Your task to perform on an android device: turn on bluetooth scan Image 0: 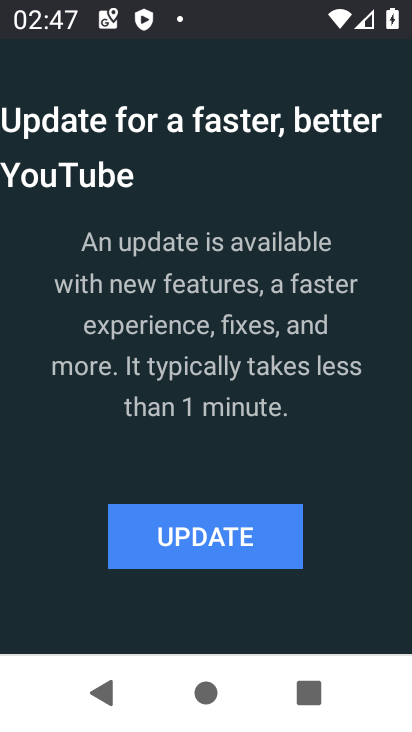
Step 0: press home button
Your task to perform on an android device: turn on bluetooth scan Image 1: 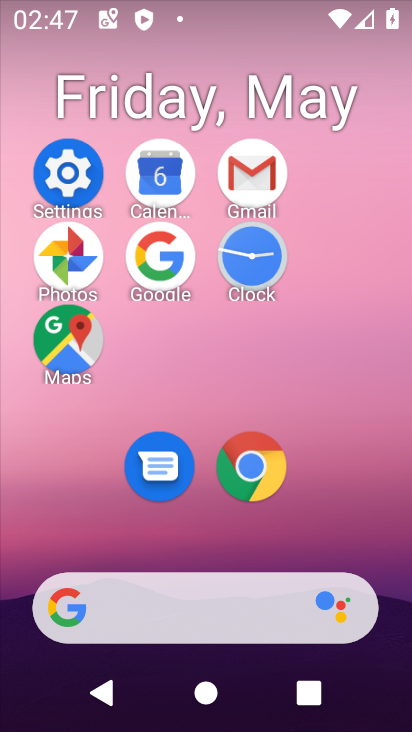
Step 1: click (66, 174)
Your task to perform on an android device: turn on bluetooth scan Image 2: 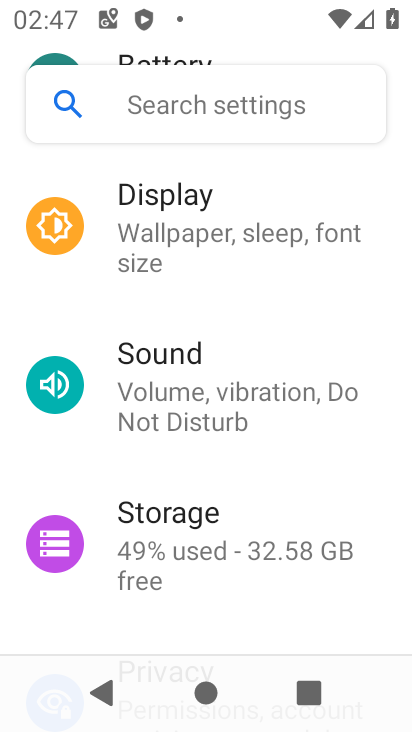
Step 2: drag from (259, 566) to (276, 131)
Your task to perform on an android device: turn on bluetooth scan Image 3: 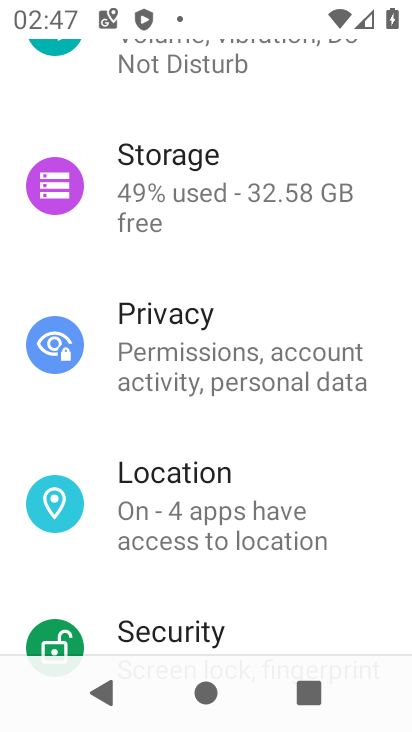
Step 3: drag from (319, 499) to (340, 184)
Your task to perform on an android device: turn on bluetooth scan Image 4: 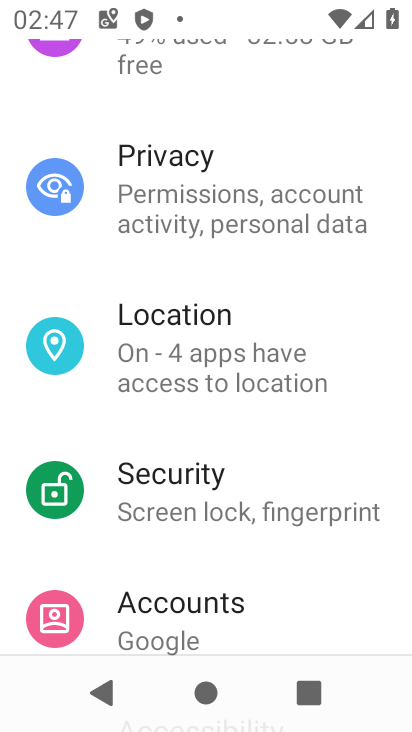
Step 4: drag from (275, 604) to (287, 190)
Your task to perform on an android device: turn on bluetooth scan Image 5: 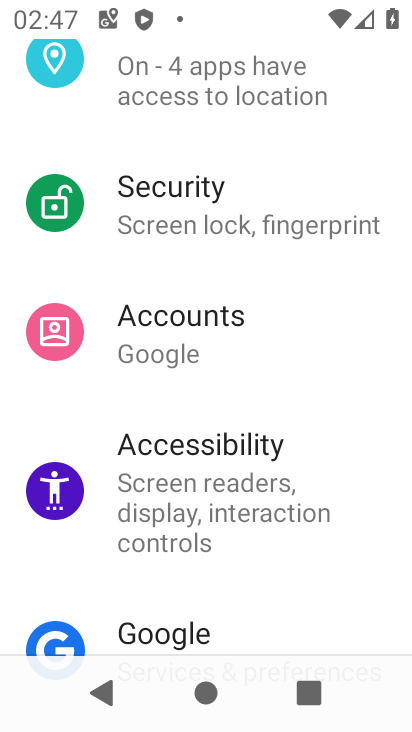
Step 5: drag from (287, 569) to (288, 242)
Your task to perform on an android device: turn on bluetooth scan Image 6: 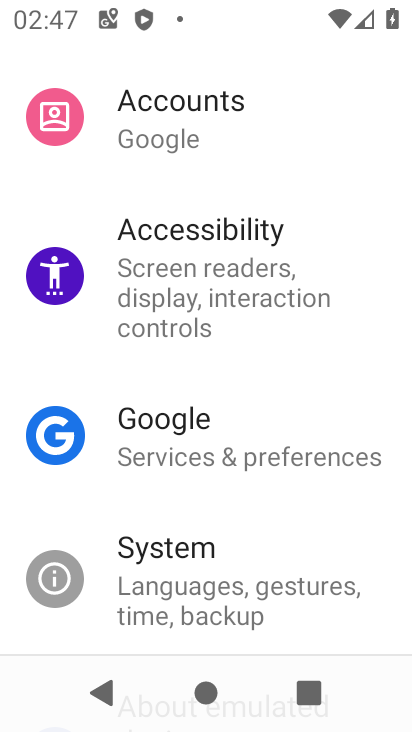
Step 6: drag from (264, 552) to (290, 246)
Your task to perform on an android device: turn on bluetooth scan Image 7: 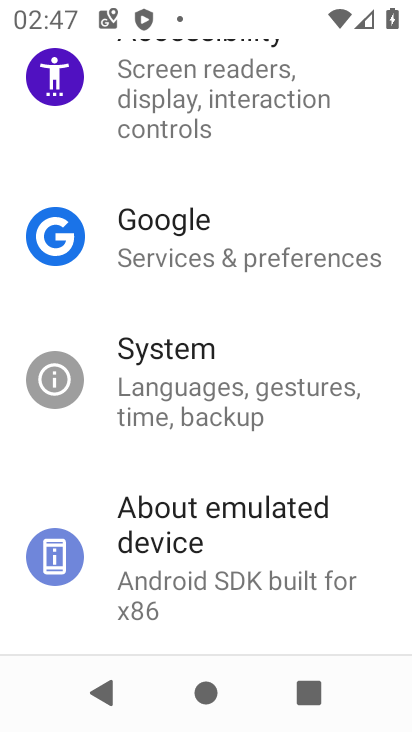
Step 7: drag from (351, 184) to (306, 617)
Your task to perform on an android device: turn on bluetooth scan Image 8: 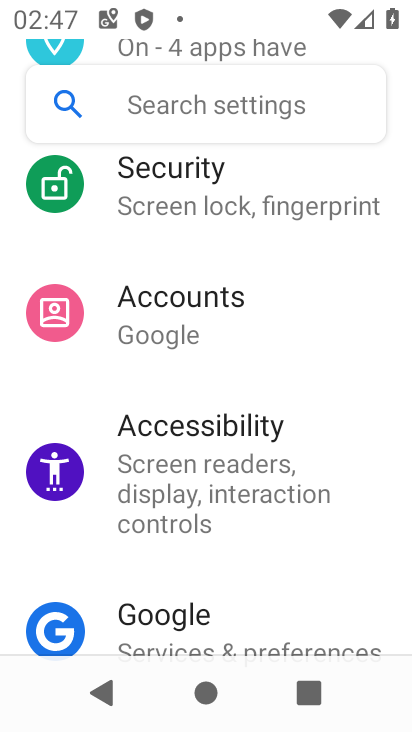
Step 8: drag from (315, 153) to (328, 612)
Your task to perform on an android device: turn on bluetooth scan Image 9: 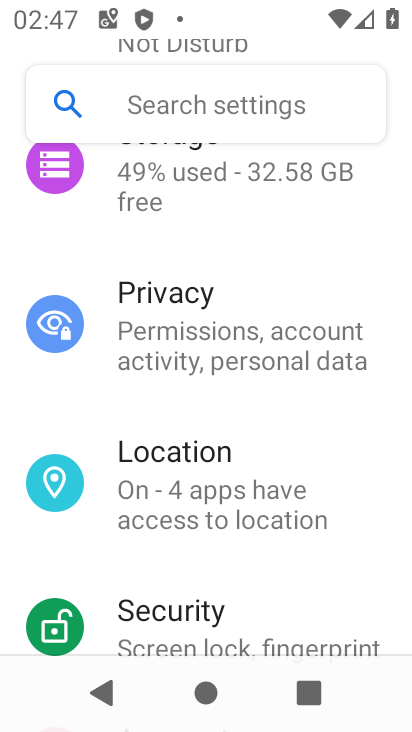
Step 9: drag from (345, 165) to (295, 511)
Your task to perform on an android device: turn on bluetooth scan Image 10: 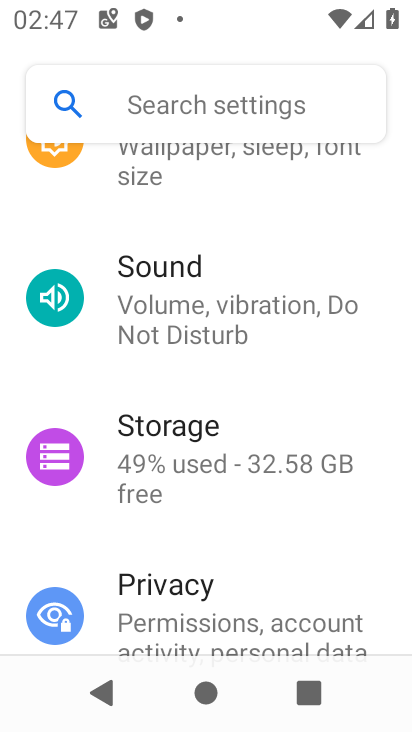
Step 10: drag from (313, 209) to (296, 571)
Your task to perform on an android device: turn on bluetooth scan Image 11: 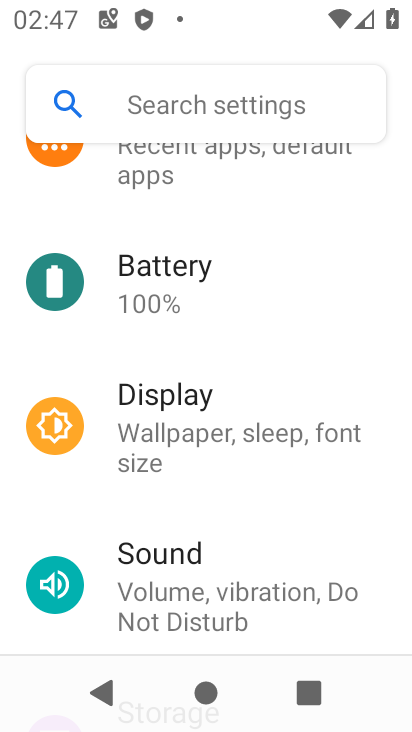
Step 11: drag from (284, 186) to (276, 545)
Your task to perform on an android device: turn on bluetooth scan Image 12: 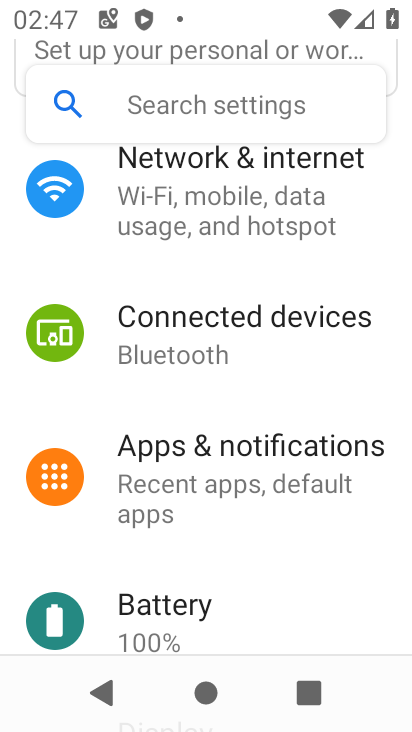
Step 12: drag from (262, 418) to (306, 151)
Your task to perform on an android device: turn on bluetooth scan Image 13: 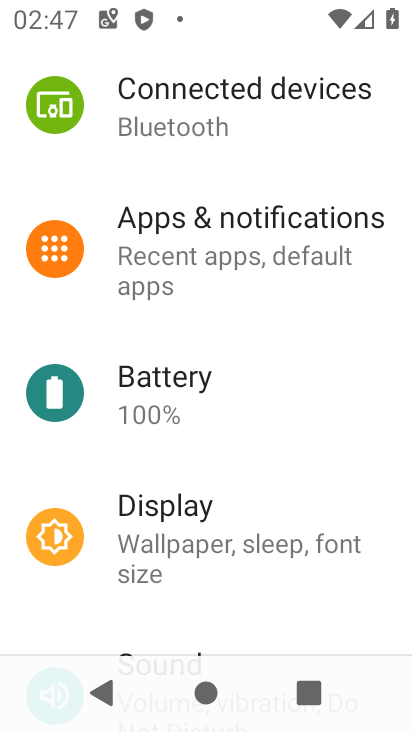
Step 13: drag from (271, 463) to (317, 168)
Your task to perform on an android device: turn on bluetooth scan Image 14: 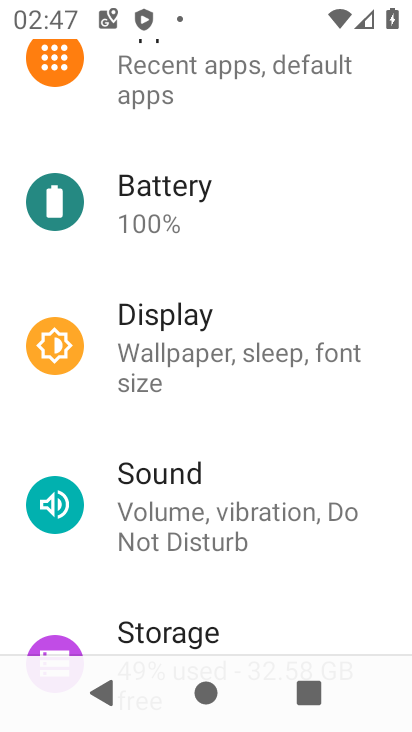
Step 14: drag from (258, 601) to (264, 163)
Your task to perform on an android device: turn on bluetooth scan Image 15: 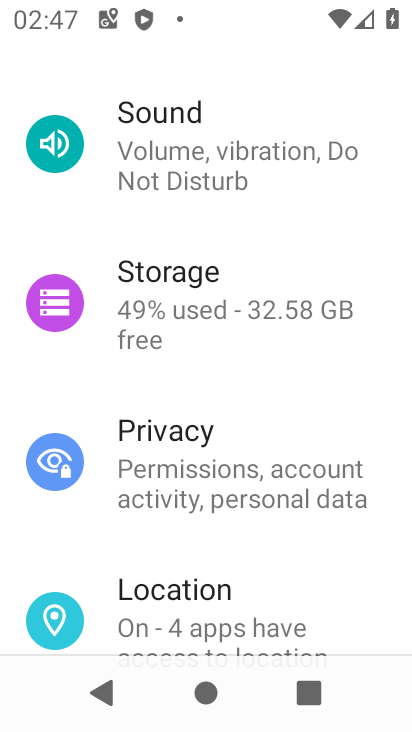
Step 15: click (243, 571)
Your task to perform on an android device: turn on bluetooth scan Image 16: 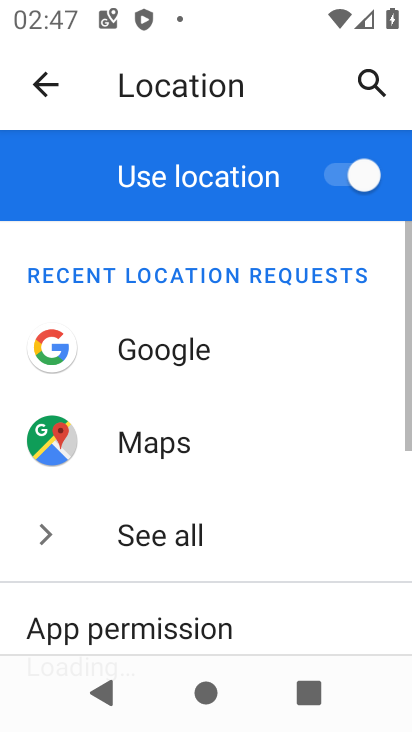
Step 16: drag from (241, 571) to (209, 165)
Your task to perform on an android device: turn on bluetooth scan Image 17: 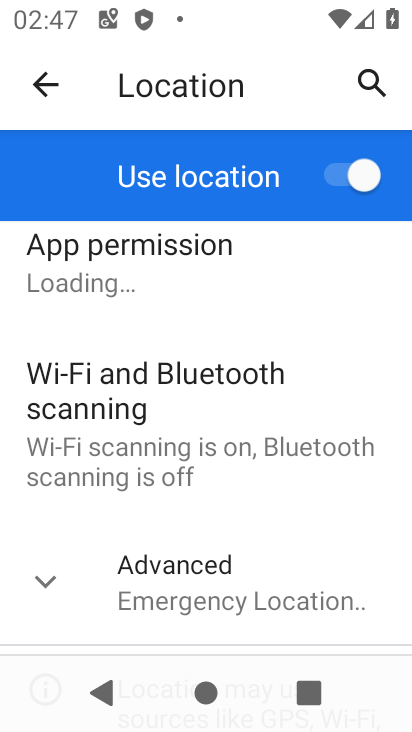
Step 17: click (167, 414)
Your task to perform on an android device: turn on bluetooth scan Image 18: 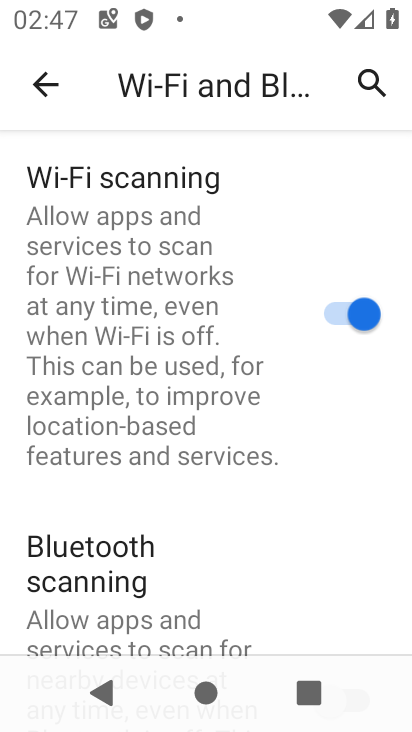
Step 18: drag from (260, 554) to (278, 206)
Your task to perform on an android device: turn on bluetooth scan Image 19: 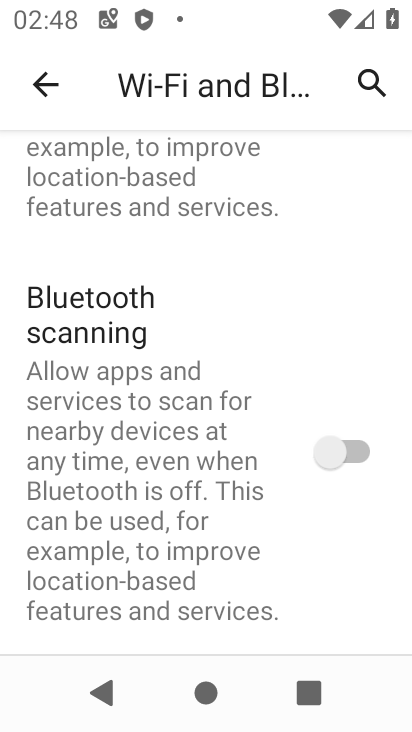
Step 19: click (315, 452)
Your task to perform on an android device: turn on bluetooth scan Image 20: 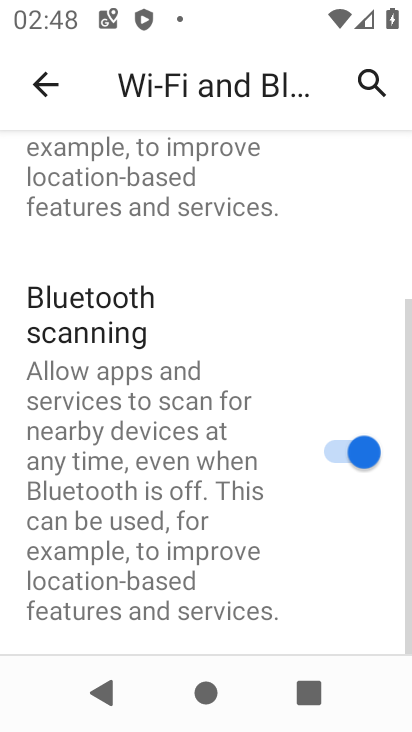
Step 20: task complete